Your task to perform on an android device: Go to Google maps Image 0: 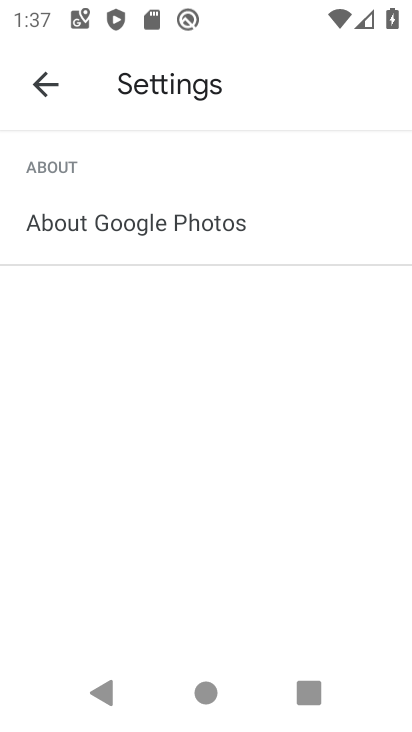
Step 0: press home button
Your task to perform on an android device: Go to Google maps Image 1: 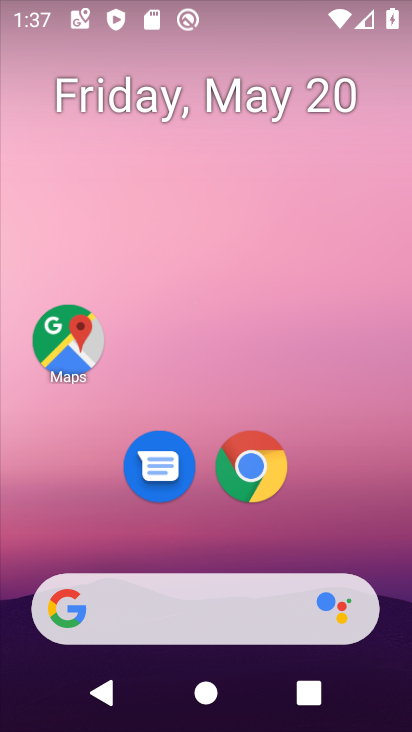
Step 1: click (75, 346)
Your task to perform on an android device: Go to Google maps Image 2: 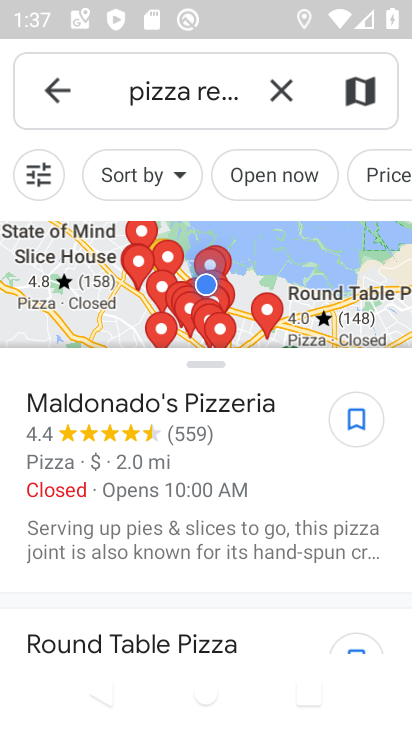
Step 2: click (64, 114)
Your task to perform on an android device: Go to Google maps Image 3: 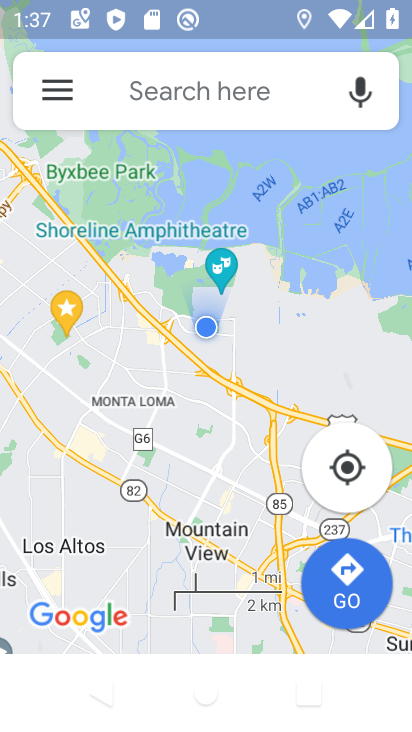
Step 3: task complete